Your task to perform on an android device: turn off sleep mode Image 0: 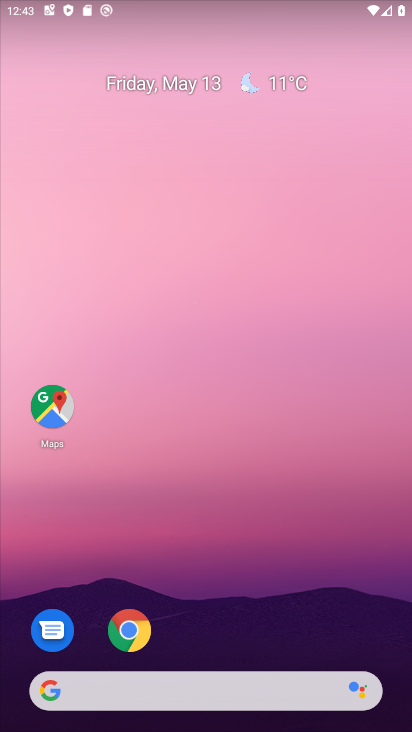
Step 0: drag from (297, 638) to (281, 9)
Your task to perform on an android device: turn off sleep mode Image 1: 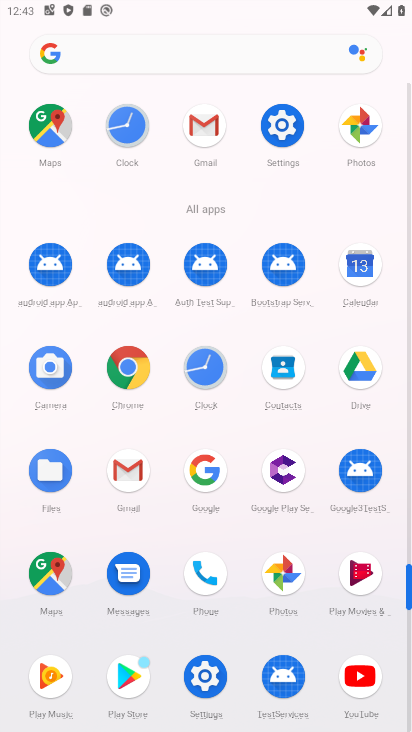
Step 1: click (264, 123)
Your task to perform on an android device: turn off sleep mode Image 2: 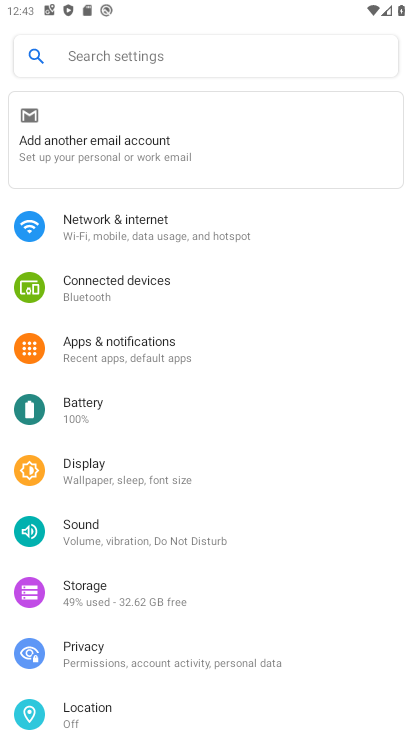
Step 2: click (89, 479)
Your task to perform on an android device: turn off sleep mode Image 3: 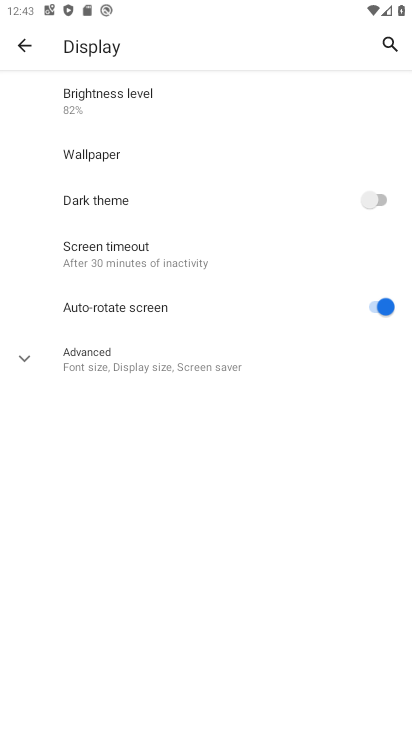
Step 3: click (27, 367)
Your task to perform on an android device: turn off sleep mode Image 4: 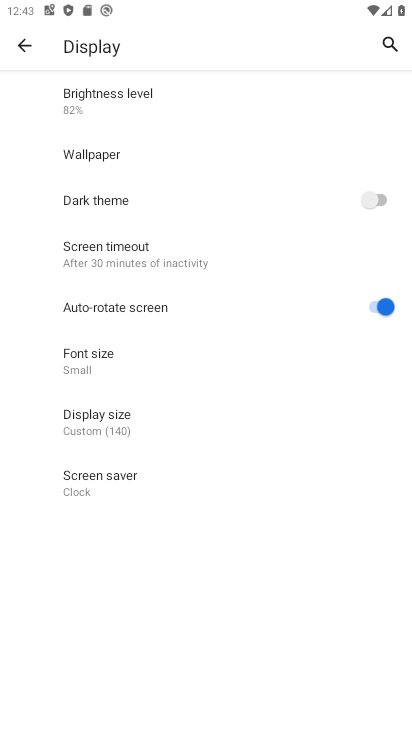
Step 4: task complete